Your task to perform on an android device: delete the emails in spam in the gmail app Image 0: 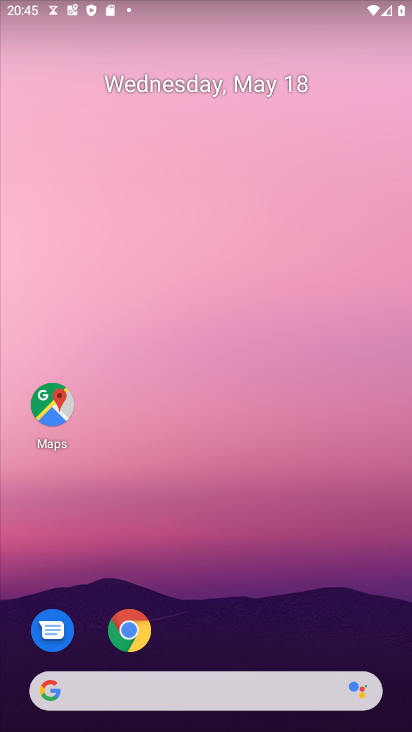
Step 0: drag from (201, 620) to (283, 184)
Your task to perform on an android device: delete the emails in spam in the gmail app Image 1: 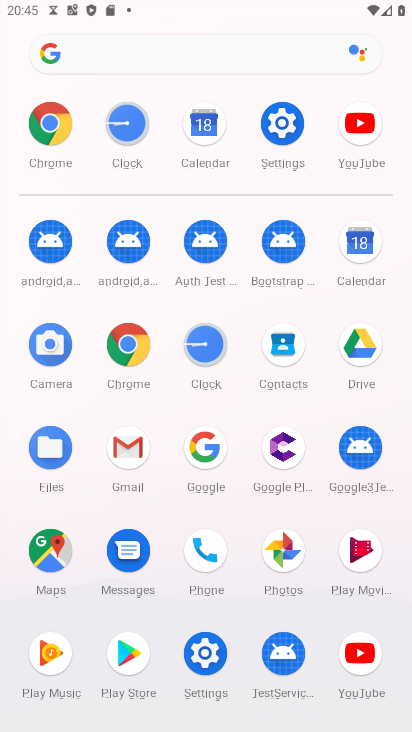
Step 1: click (131, 443)
Your task to perform on an android device: delete the emails in spam in the gmail app Image 2: 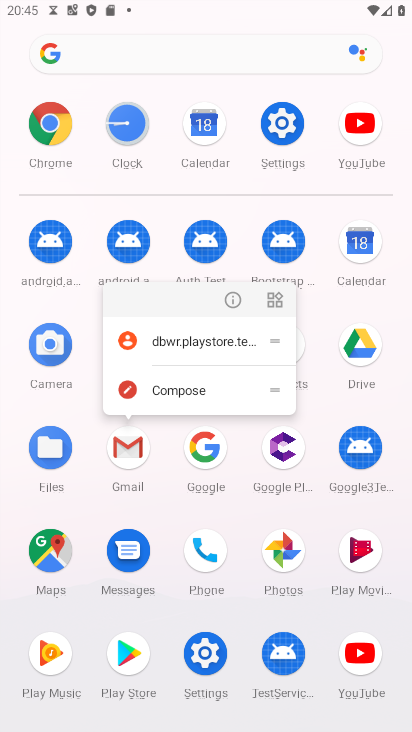
Step 2: click (129, 455)
Your task to perform on an android device: delete the emails in spam in the gmail app Image 3: 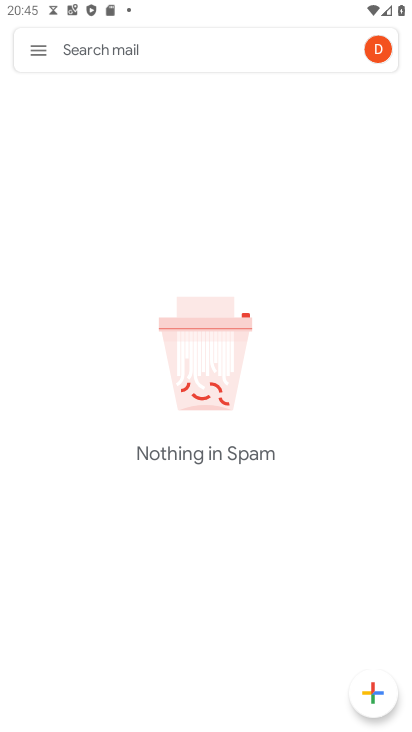
Step 3: task complete